Your task to perform on an android device: Search for the best rated phone case for the iPhone 8. Image 0: 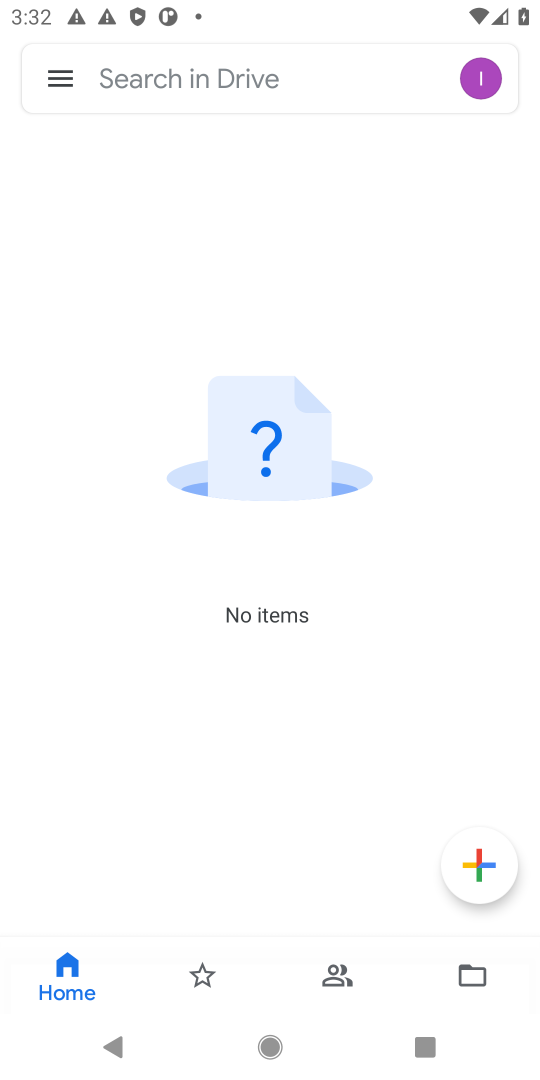
Step 0: press home button
Your task to perform on an android device: Search for the best rated phone case for the iPhone 8. Image 1: 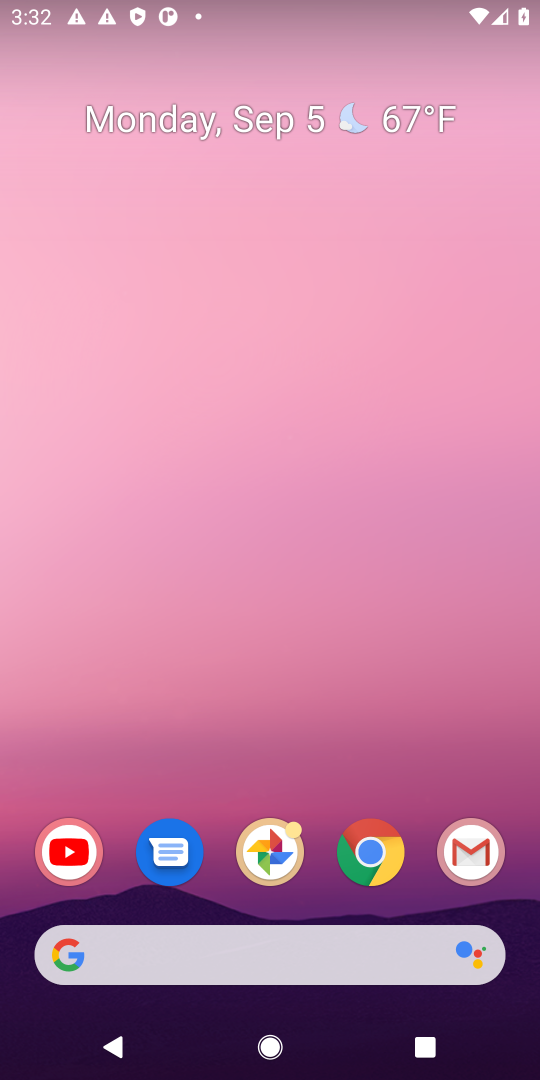
Step 1: click (367, 853)
Your task to perform on an android device: Search for the best rated phone case for the iPhone 8. Image 2: 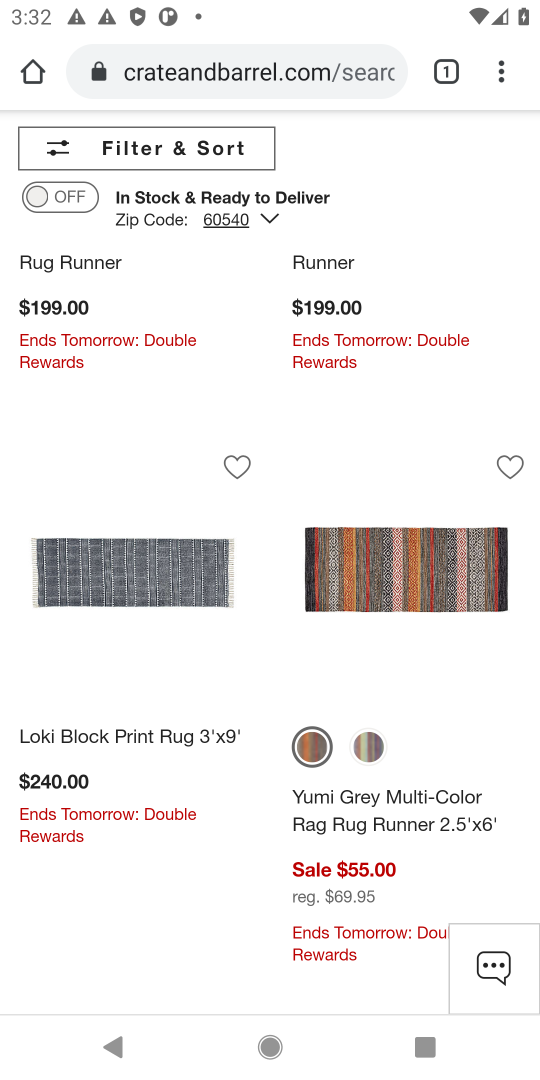
Step 2: click (288, 42)
Your task to perform on an android device: Search for the best rated phone case for the iPhone 8. Image 3: 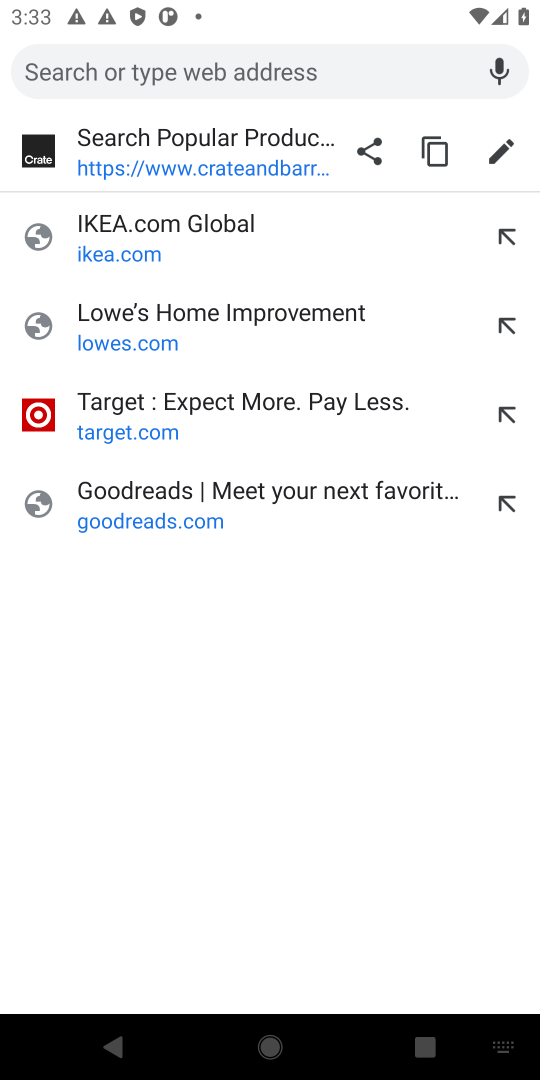
Step 3: type " best rated phone case for the iPhone 8"
Your task to perform on an android device: Search for the best rated phone case for the iPhone 8. Image 4: 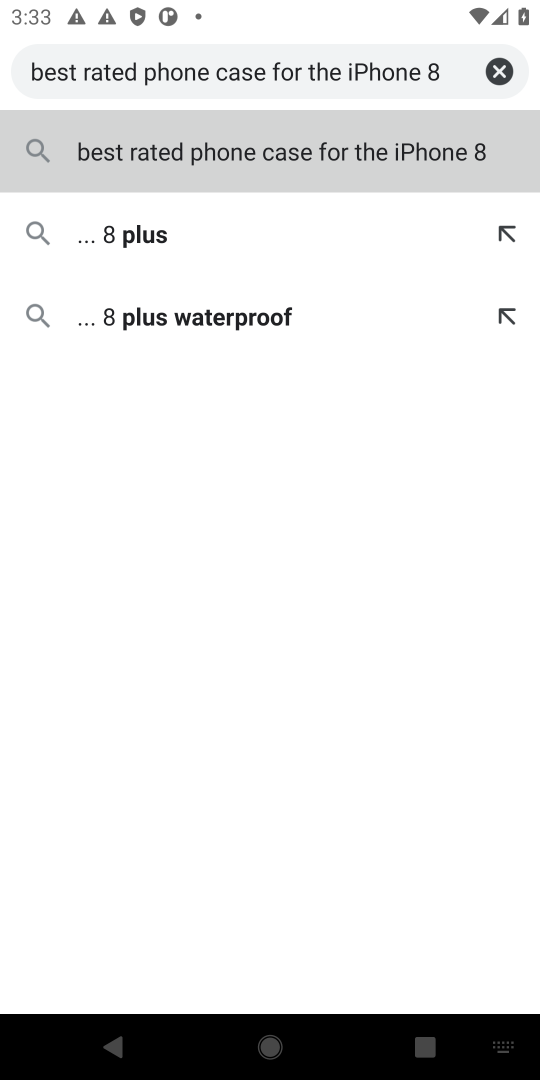
Step 4: click (159, 155)
Your task to perform on an android device: Search for the best rated phone case for the iPhone 8. Image 5: 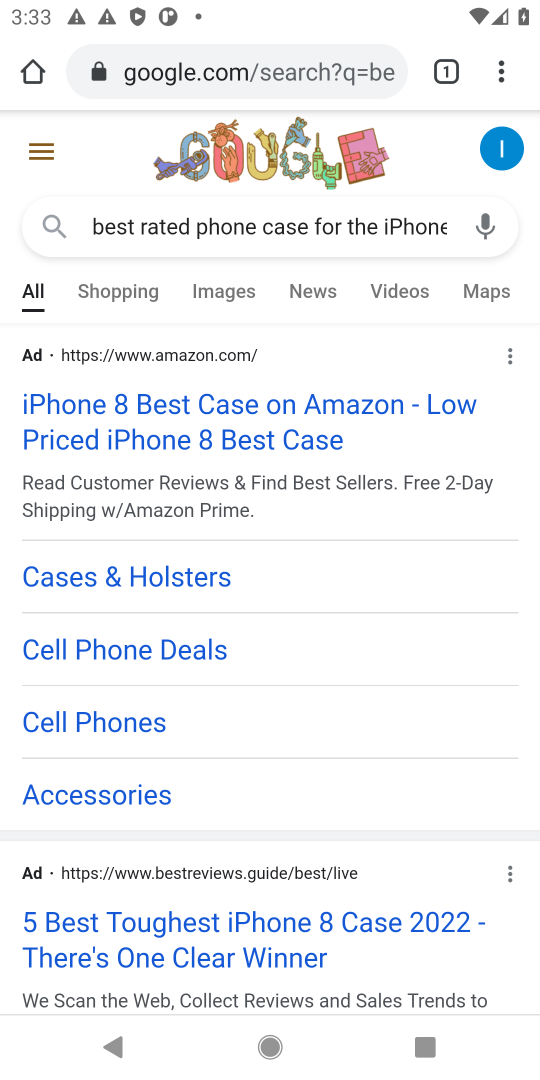
Step 5: task complete